Your task to perform on an android device: Open the Play Movies app and select the watchlist tab. Image 0: 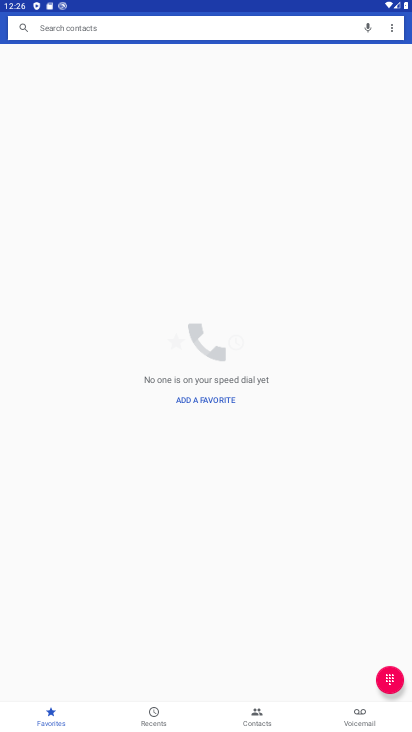
Step 0: press home button
Your task to perform on an android device: Open the Play Movies app and select the watchlist tab. Image 1: 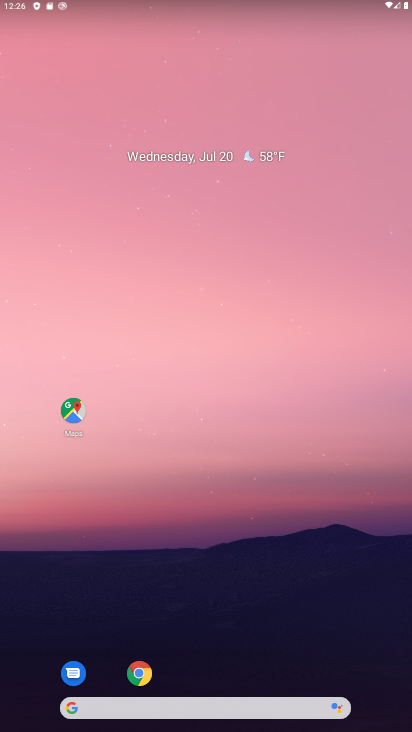
Step 1: drag from (200, 648) to (293, 33)
Your task to perform on an android device: Open the Play Movies app and select the watchlist tab. Image 2: 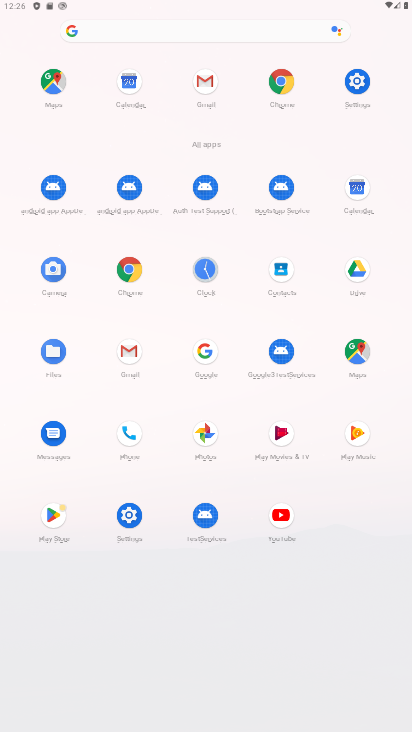
Step 2: click (282, 442)
Your task to perform on an android device: Open the Play Movies app and select the watchlist tab. Image 3: 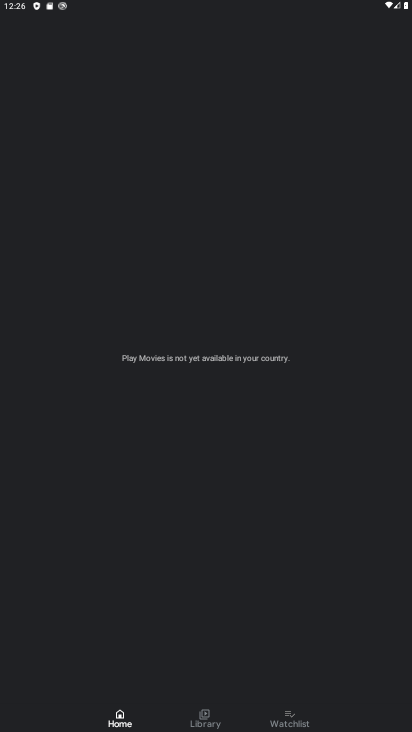
Step 3: click (292, 714)
Your task to perform on an android device: Open the Play Movies app and select the watchlist tab. Image 4: 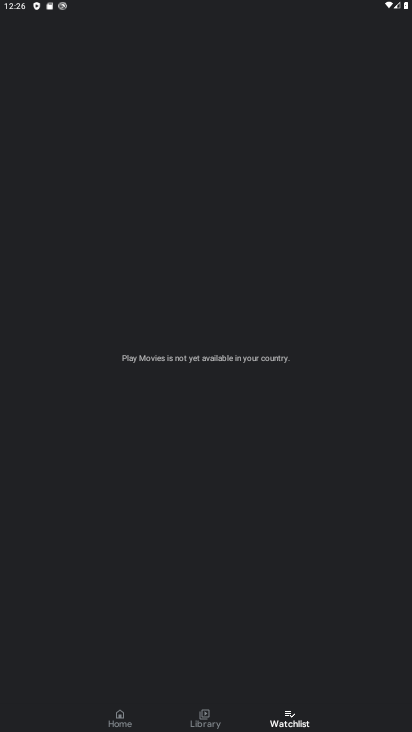
Step 4: task complete